Your task to perform on an android device: turn smart compose on in the gmail app Image 0: 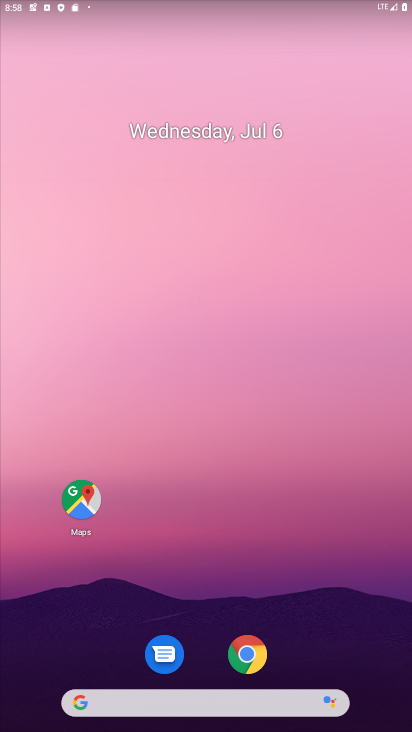
Step 0: click (264, 52)
Your task to perform on an android device: turn smart compose on in the gmail app Image 1: 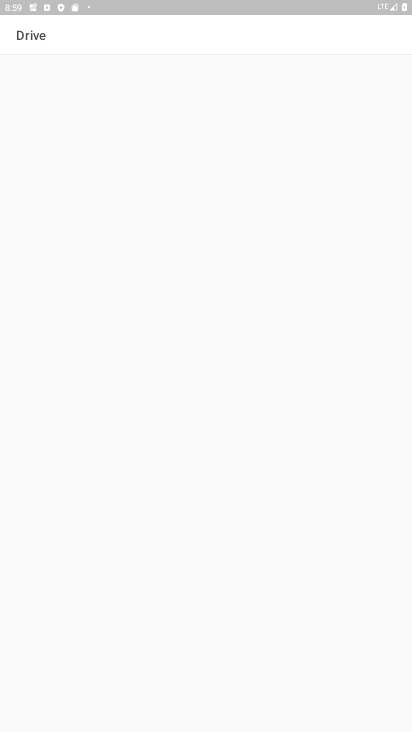
Step 1: drag from (200, 11) to (156, 728)
Your task to perform on an android device: turn smart compose on in the gmail app Image 2: 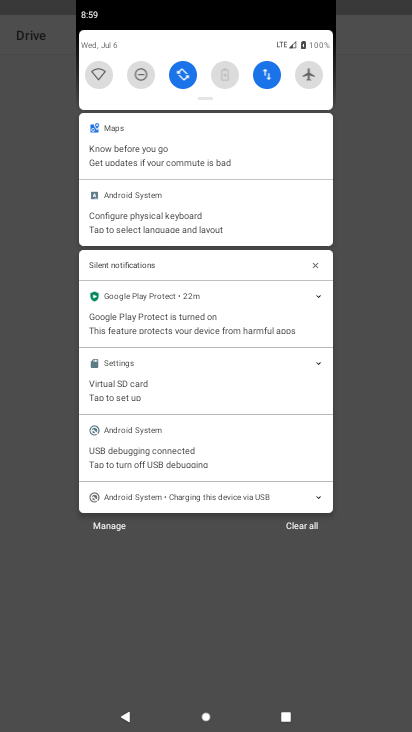
Step 2: press home button
Your task to perform on an android device: turn smart compose on in the gmail app Image 3: 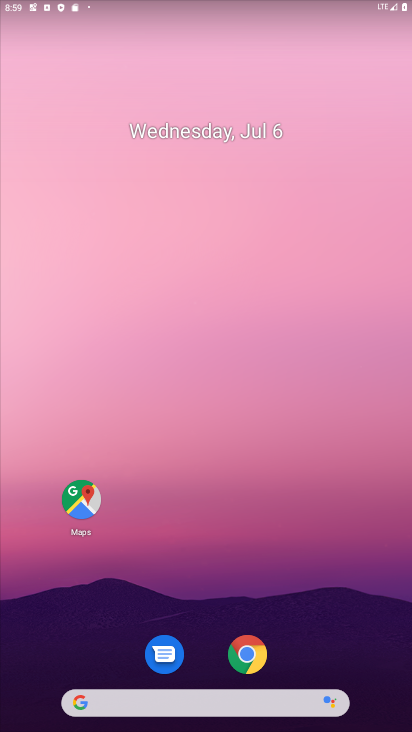
Step 3: drag from (197, 664) to (214, 100)
Your task to perform on an android device: turn smart compose on in the gmail app Image 4: 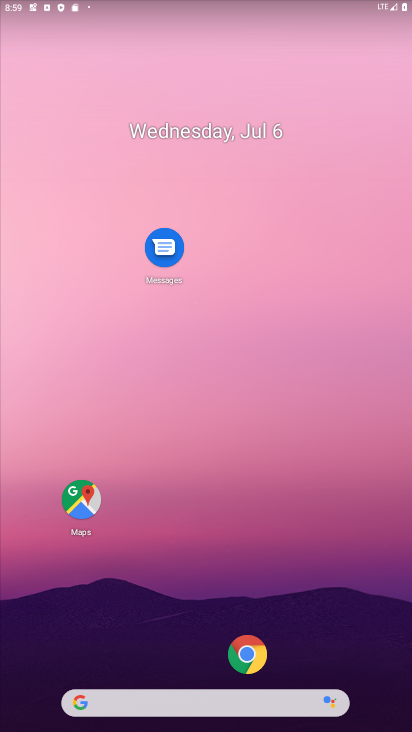
Step 4: drag from (191, 652) to (267, 21)
Your task to perform on an android device: turn smart compose on in the gmail app Image 5: 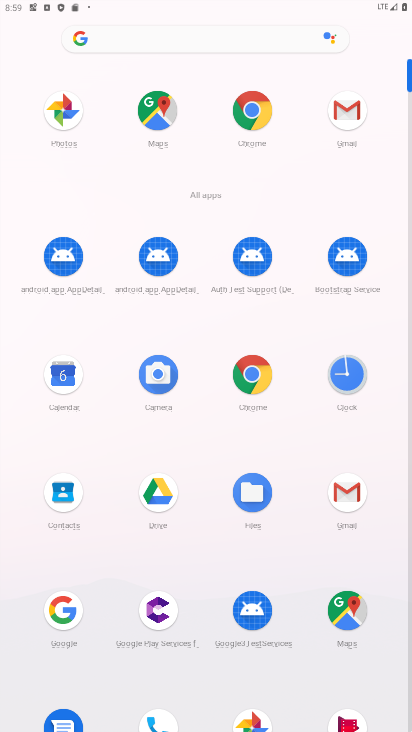
Step 5: click (342, 119)
Your task to perform on an android device: turn smart compose on in the gmail app Image 6: 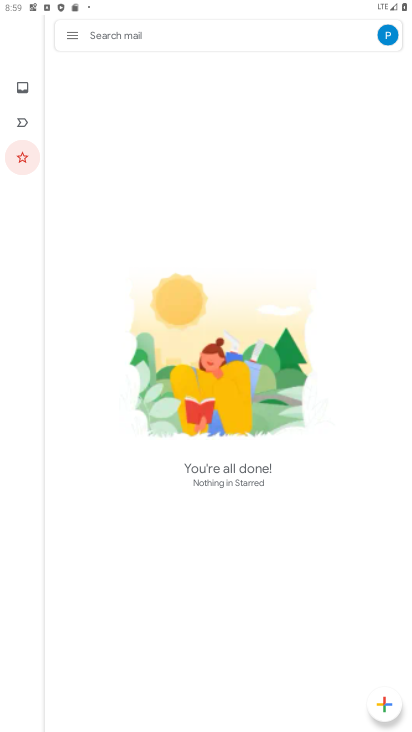
Step 6: click (72, 31)
Your task to perform on an android device: turn smart compose on in the gmail app Image 7: 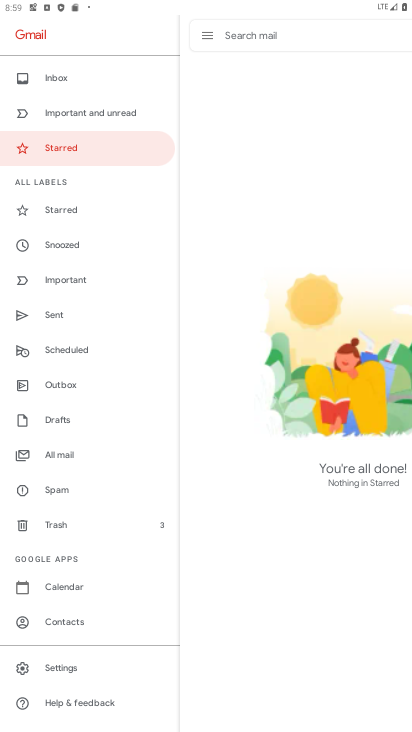
Step 7: click (93, 670)
Your task to perform on an android device: turn smart compose on in the gmail app Image 8: 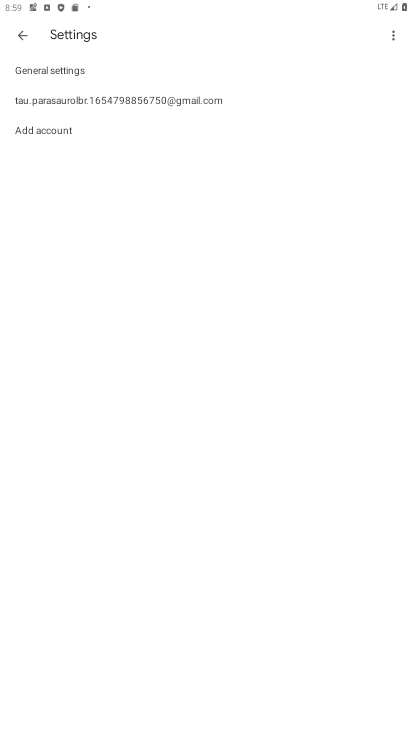
Step 8: click (240, 103)
Your task to perform on an android device: turn smart compose on in the gmail app Image 9: 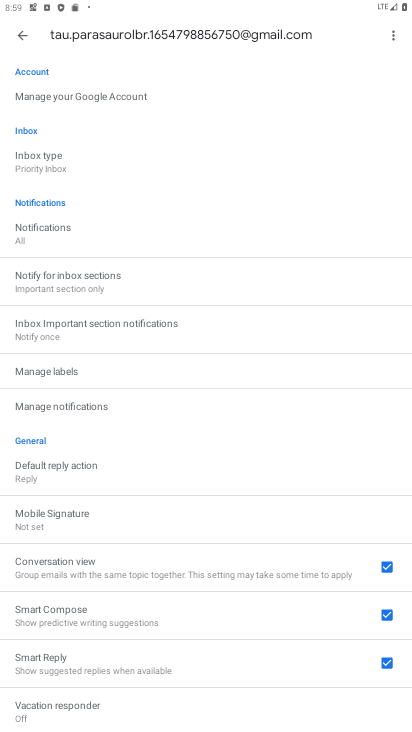
Step 9: task complete